Your task to perform on an android device: clear history in the chrome app Image 0: 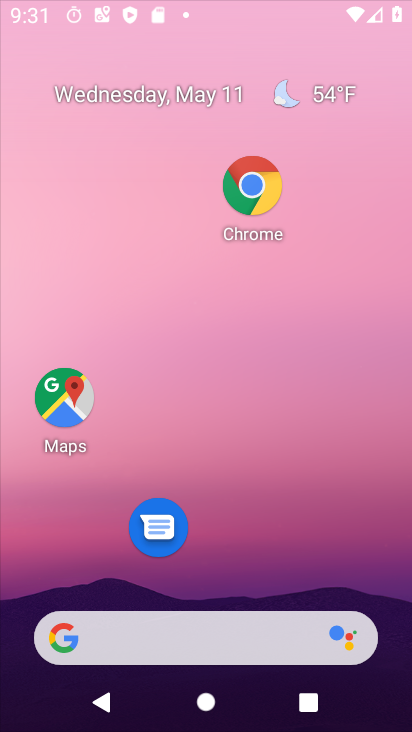
Step 0: click (256, 129)
Your task to perform on an android device: clear history in the chrome app Image 1: 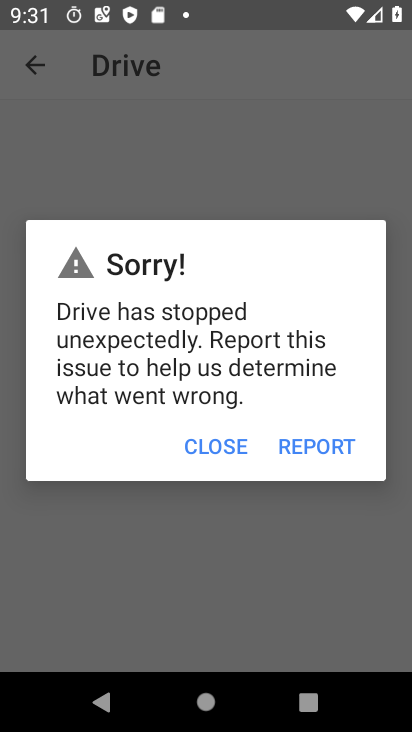
Step 1: press home button
Your task to perform on an android device: clear history in the chrome app Image 2: 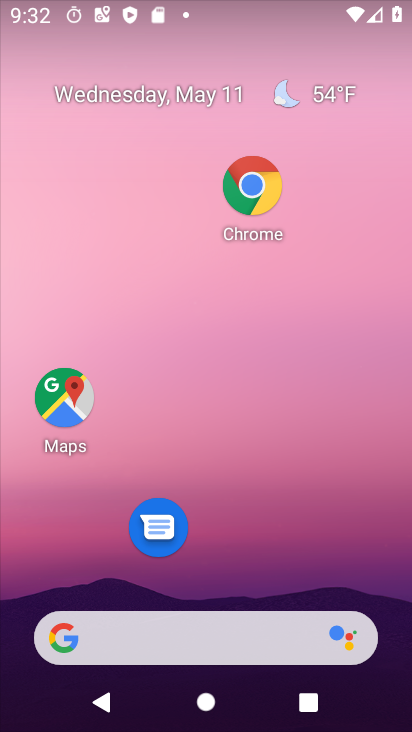
Step 2: click (253, 189)
Your task to perform on an android device: clear history in the chrome app Image 3: 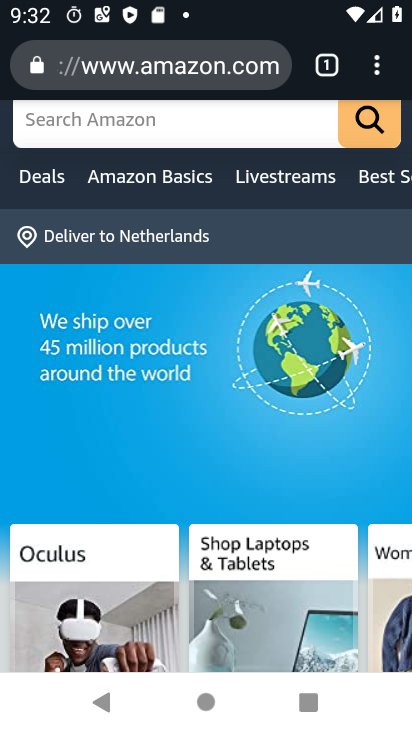
Step 3: click (371, 66)
Your task to perform on an android device: clear history in the chrome app Image 4: 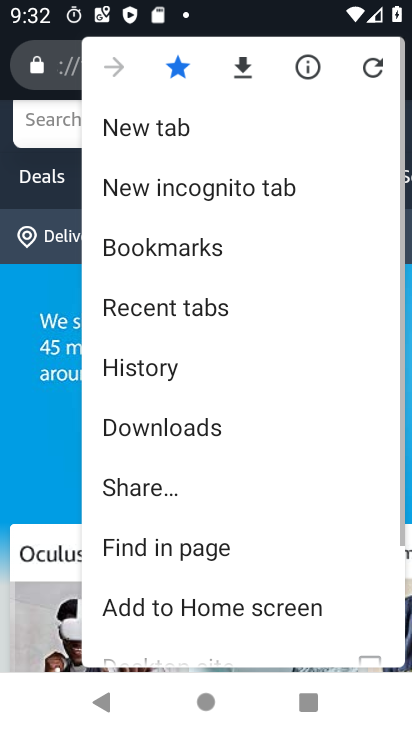
Step 4: drag from (232, 529) to (256, 144)
Your task to perform on an android device: clear history in the chrome app Image 5: 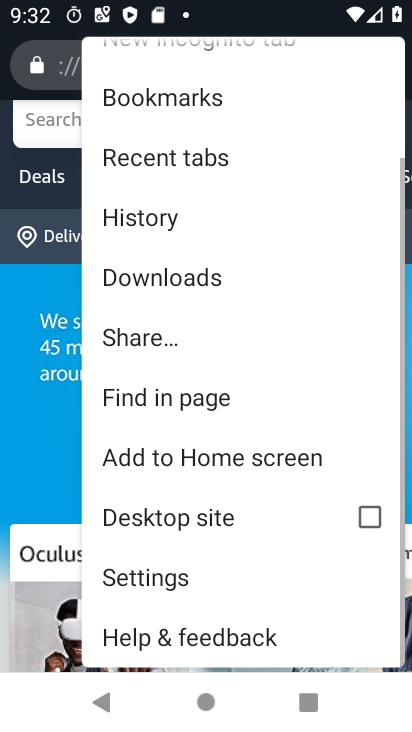
Step 5: click (159, 565)
Your task to perform on an android device: clear history in the chrome app Image 6: 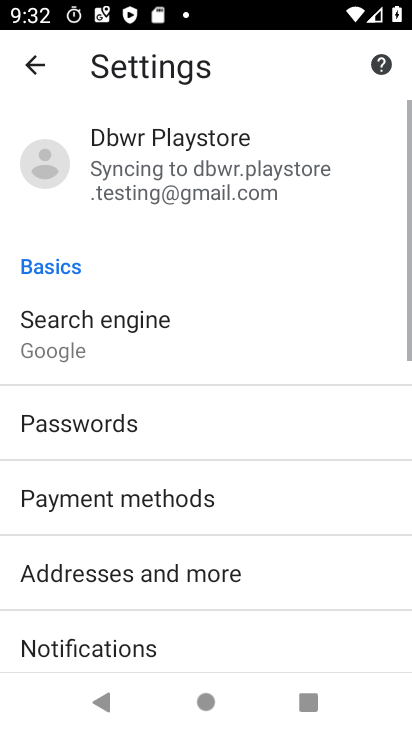
Step 6: drag from (151, 573) to (143, 205)
Your task to perform on an android device: clear history in the chrome app Image 7: 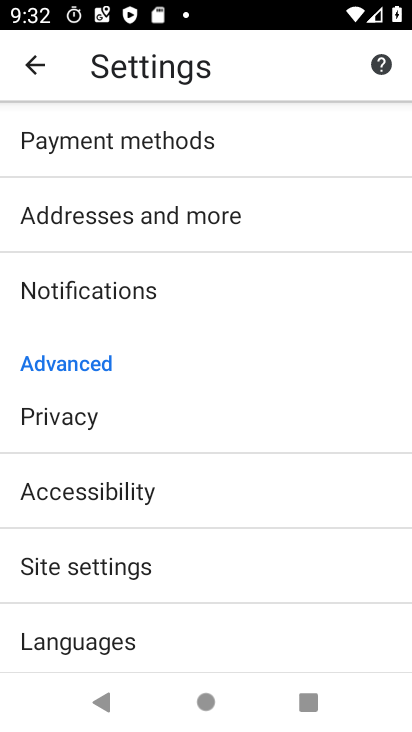
Step 7: click (105, 418)
Your task to perform on an android device: clear history in the chrome app Image 8: 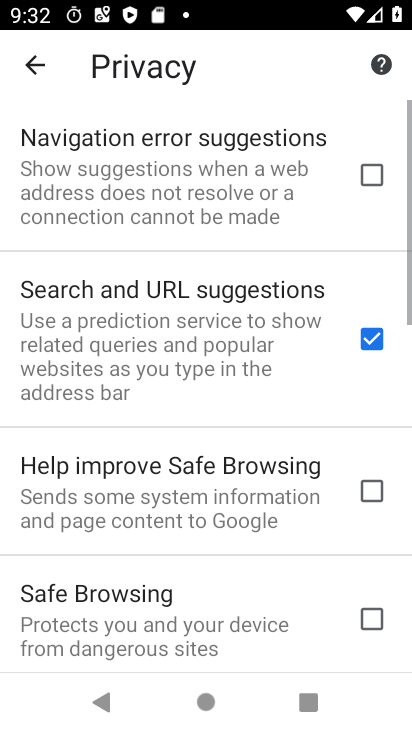
Step 8: drag from (266, 598) to (260, 60)
Your task to perform on an android device: clear history in the chrome app Image 9: 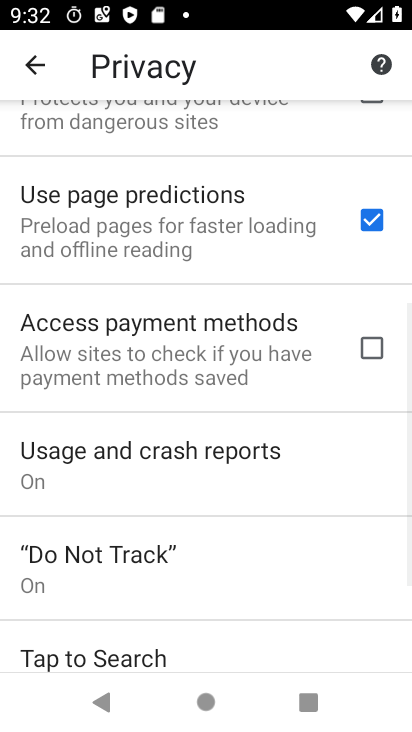
Step 9: drag from (205, 565) to (199, 91)
Your task to perform on an android device: clear history in the chrome app Image 10: 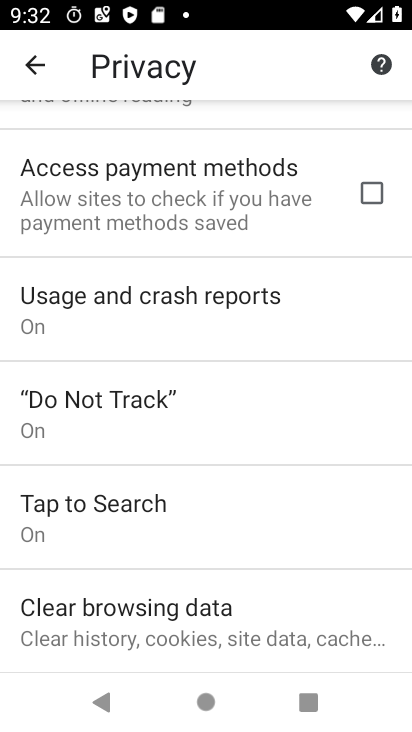
Step 10: click (160, 628)
Your task to perform on an android device: clear history in the chrome app Image 11: 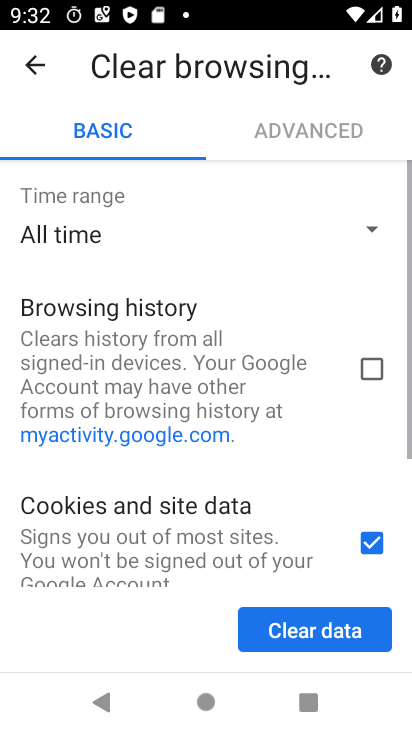
Step 11: drag from (226, 464) to (230, 326)
Your task to perform on an android device: clear history in the chrome app Image 12: 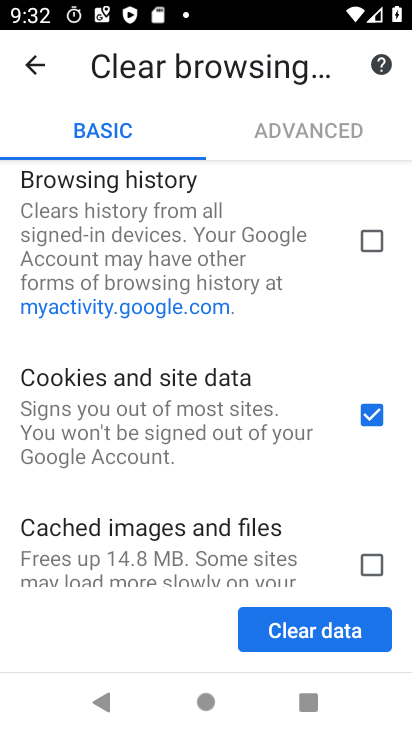
Step 12: click (365, 240)
Your task to perform on an android device: clear history in the chrome app Image 13: 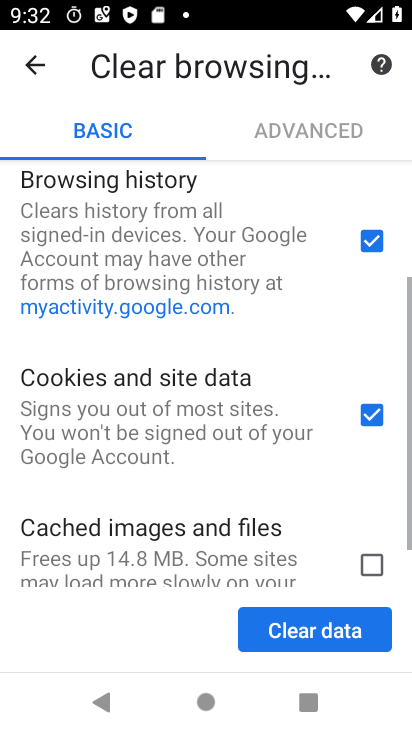
Step 13: click (367, 416)
Your task to perform on an android device: clear history in the chrome app Image 14: 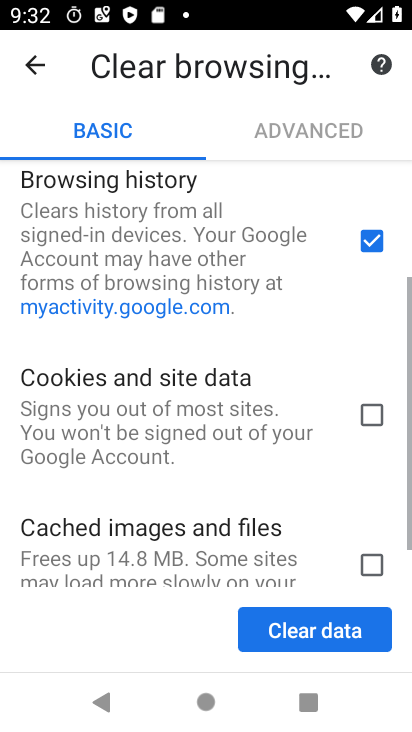
Step 14: drag from (268, 520) to (261, 269)
Your task to perform on an android device: clear history in the chrome app Image 15: 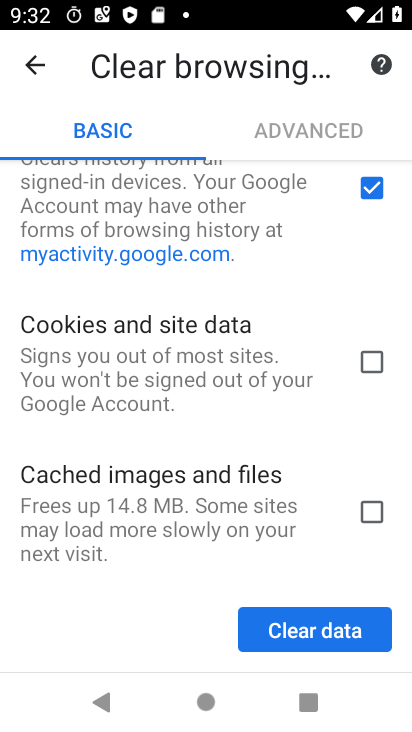
Step 15: click (314, 646)
Your task to perform on an android device: clear history in the chrome app Image 16: 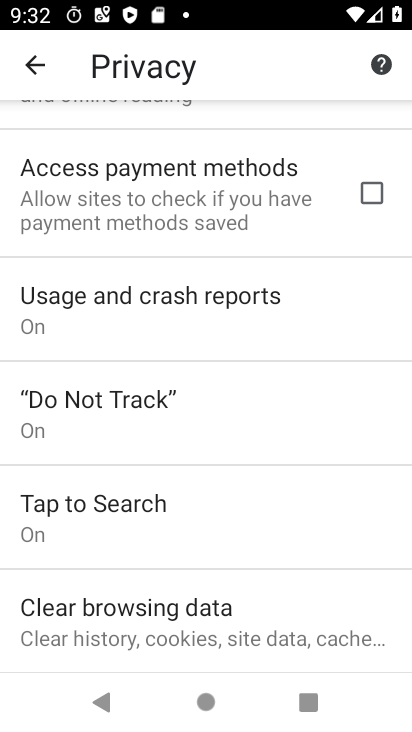
Step 16: task complete